Your task to perform on an android device: What's on my calendar today? Image 0: 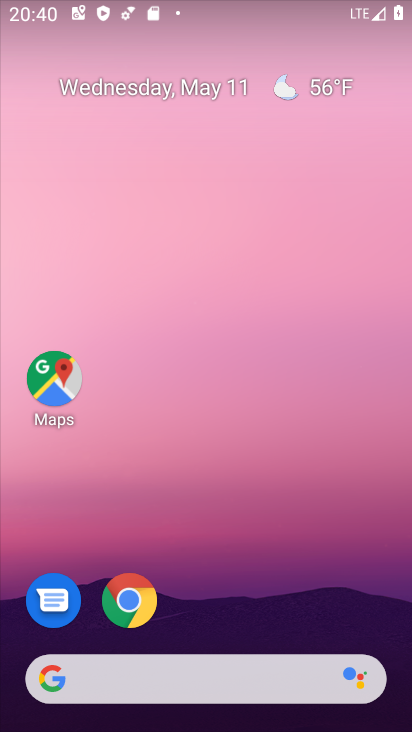
Step 0: drag from (259, 561) to (233, 123)
Your task to perform on an android device: What's on my calendar today? Image 1: 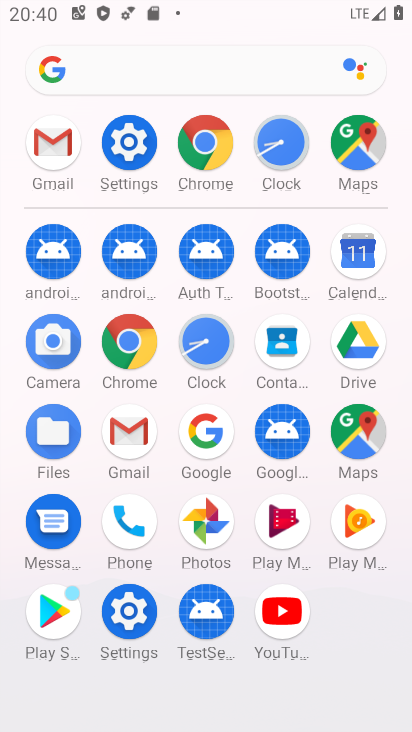
Step 1: click (357, 255)
Your task to perform on an android device: What's on my calendar today? Image 2: 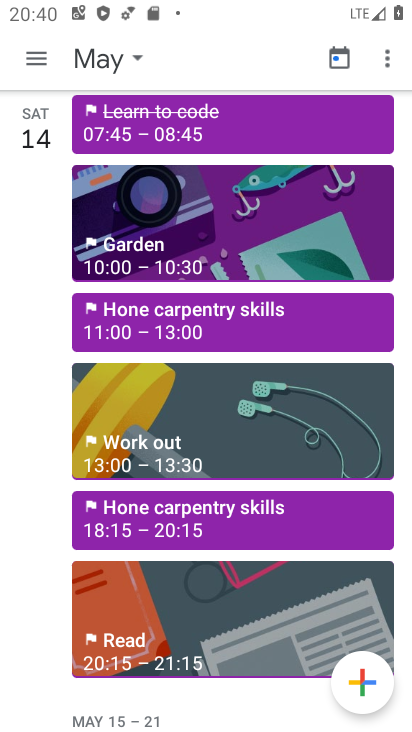
Step 2: click (341, 57)
Your task to perform on an android device: What's on my calendar today? Image 3: 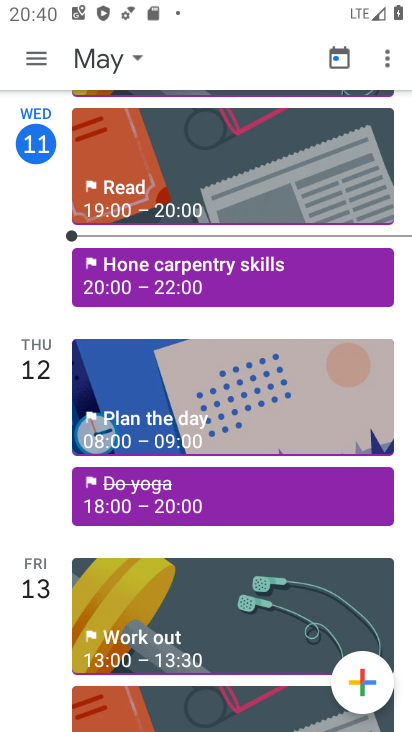
Step 3: click (210, 253)
Your task to perform on an android device: What's on my calendar today? Image 4: 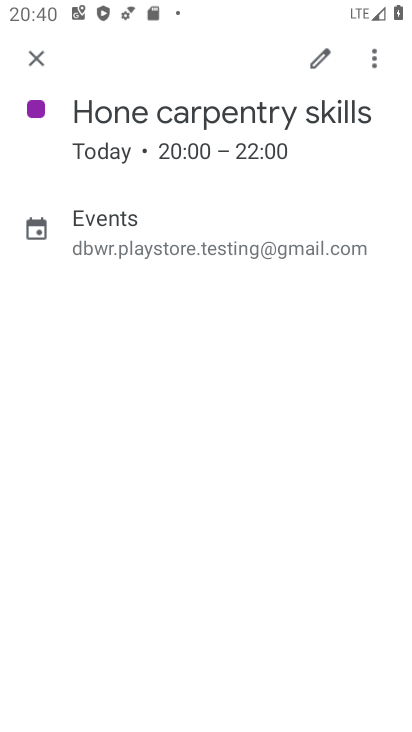
Step 4: task complete